Your task to perform on an android device: see sites visited before in the chrome app Image 0: 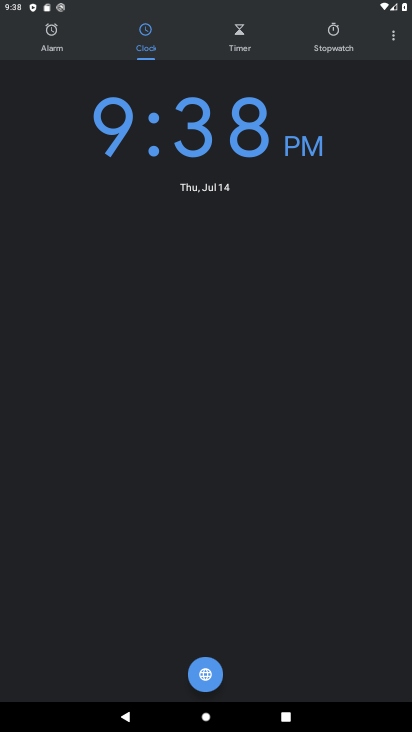
Step 0: press home button
Your task to perform on an android device: see sites visited before in the chrome app Image 1: 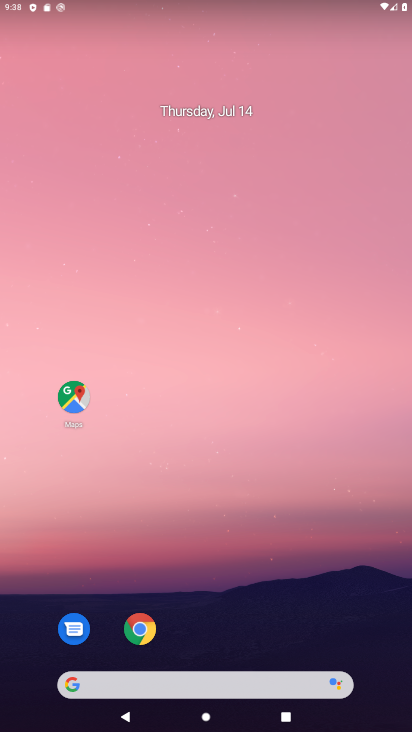
Step 1: click (138, 631)
Your task to perform on an android device: see sites visited before in the chrome app Image 2: 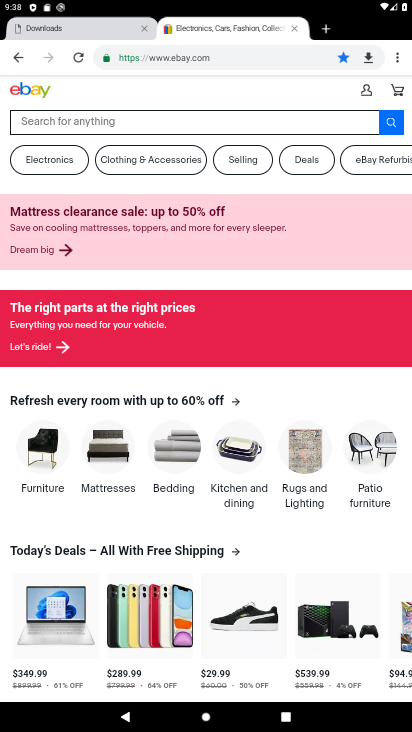
Step 2: click (392, 55)
Your task to perform on an android device: see sites visited before in the chrome app Image 3: 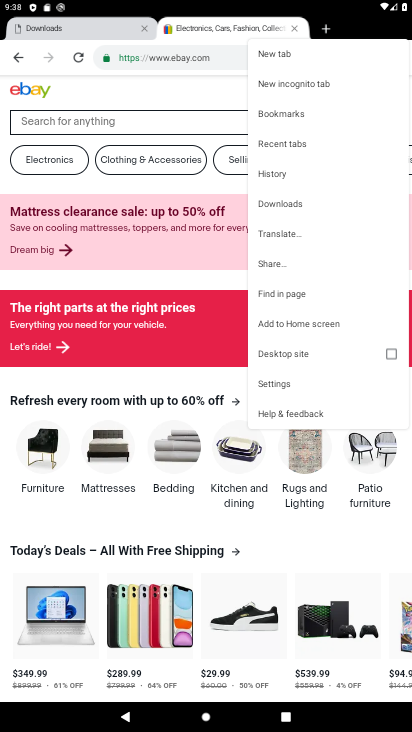
Step 3: click (272, 178)
Your task to perform on an android device: see sites visited before in the chrome app Image 4: 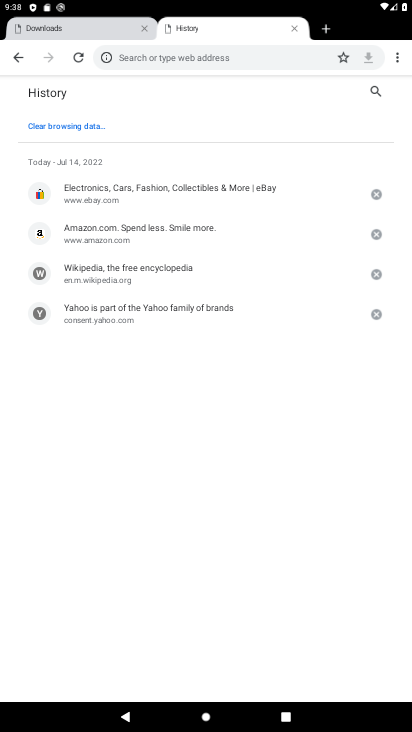
Step 4: task complete